Your task to perform on an android device: Open Youtube and go to the subscriptions tab Image 0: 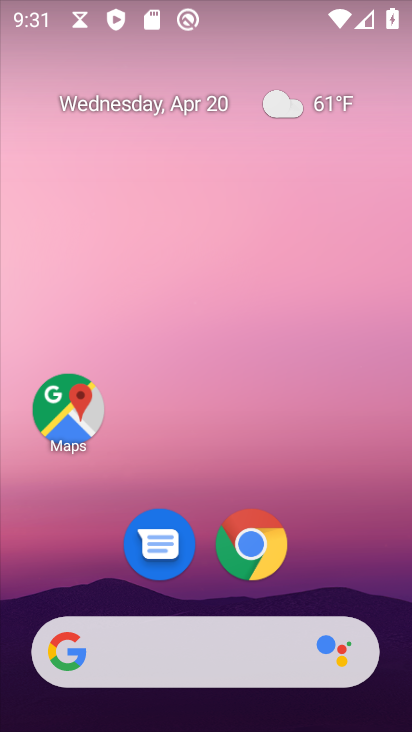
Step 0: drag from (121, 648) to (305, 86)
Your task to perform on an android device: Open Youtube and go to the subscriptions tab Image 1: 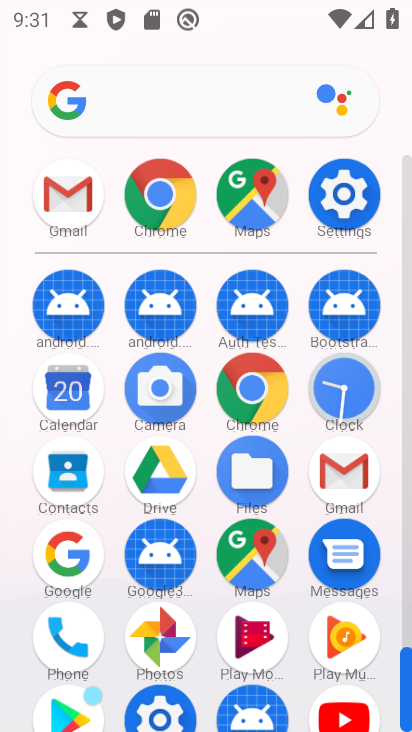
Step 1: click (342, 720)
Your task to perform on an android device: Open Youtube and go to the subscriptions tab Image 2: 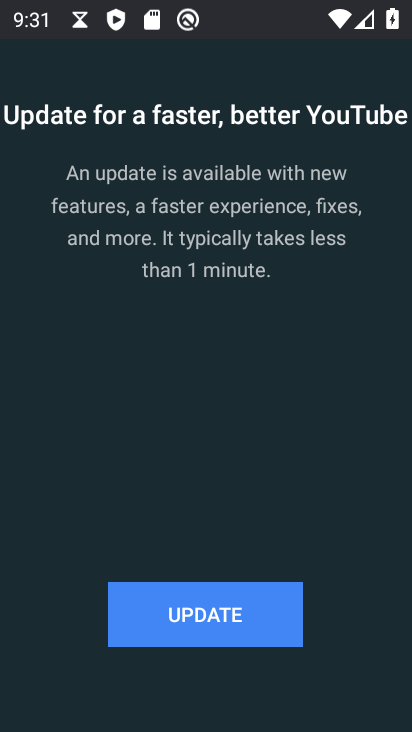
Step 2: click (199, 616)
Your task to perform on an android device: Open Youtube and go to the subscriptions tab Image 3: 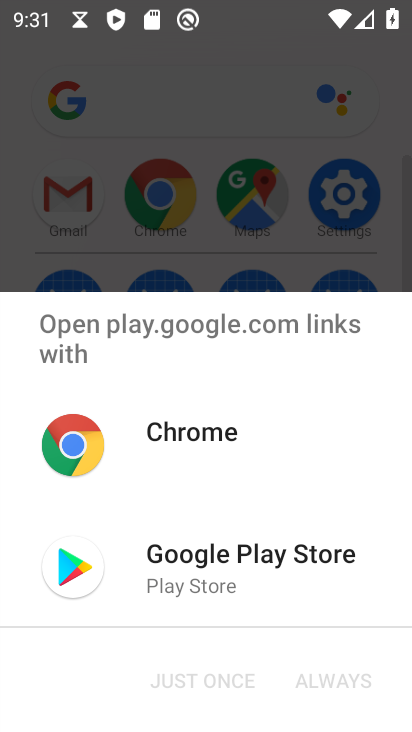
Step 3: click (180, 577)
Your task to perform on an android device: Open Youtube and go to the subscriptions tab Image 4: 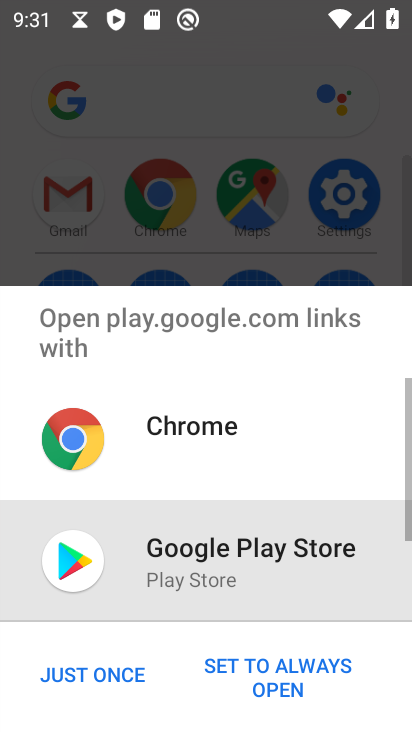
Step 4: click (120, 675)
Your task to perform on an android device: Open Youtube and go to the subscriptions tab Image 5: 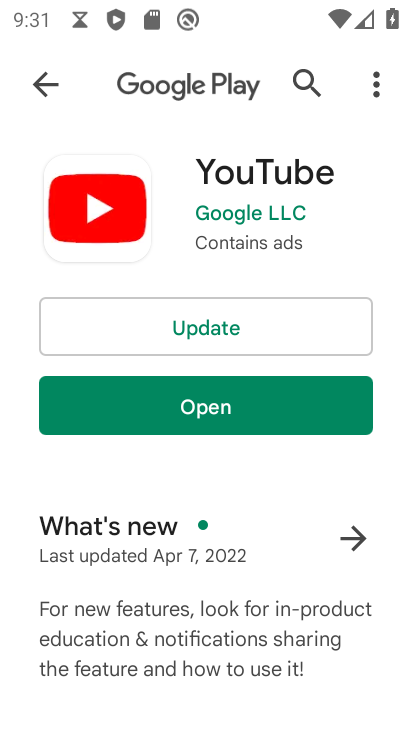
Step 5: click (224, 314)
Your task to perform on an android device: Open Youtube and go to the subscriptions tab Image 6: 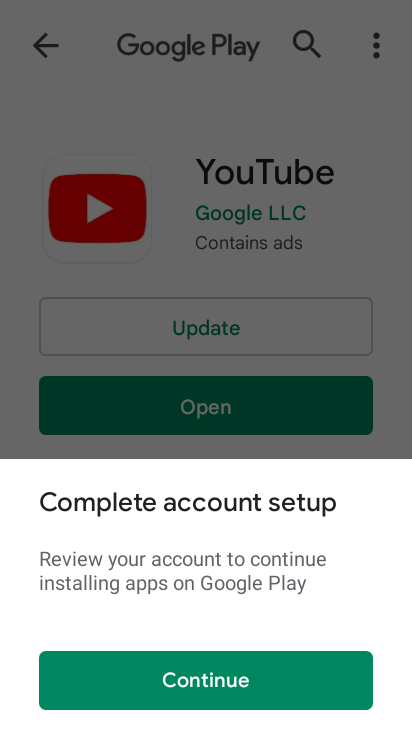
Step 6: click (227, 324)
Your task to perform on an android device: Open Youtube and go to the subscriptions tab Image 7: 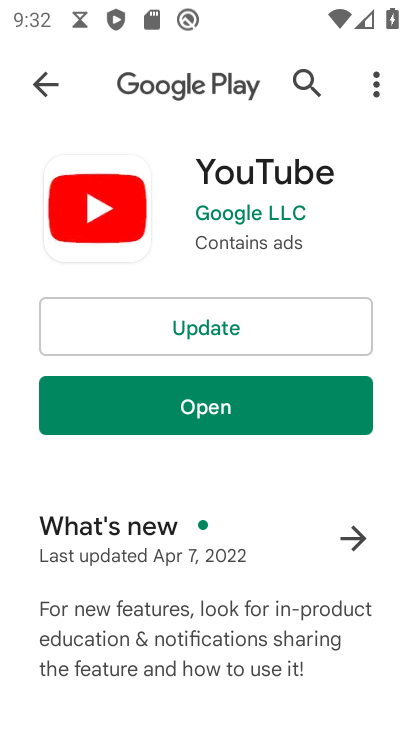
Step 7: click (198, 406)
Your task to perform on an android device: Open Youtube and go to the subscriptions tab Image 8: 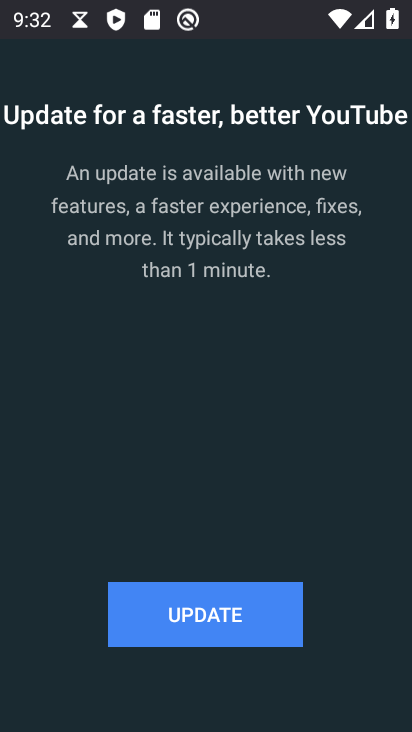
Step 8: click (198, 618)
Your task to perform on an android device: Open Youtube and go to the subscriptions tab Image 9: 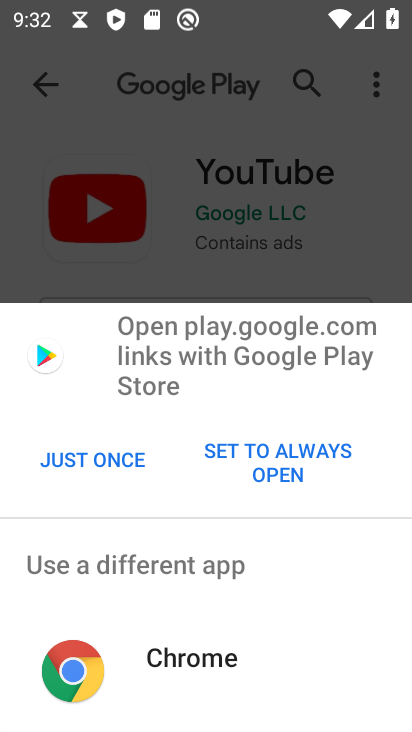
Step 9: click (95, 456)
Your task to perform on an android device: Open Youtube and go to the subscriptions tab Image 10: 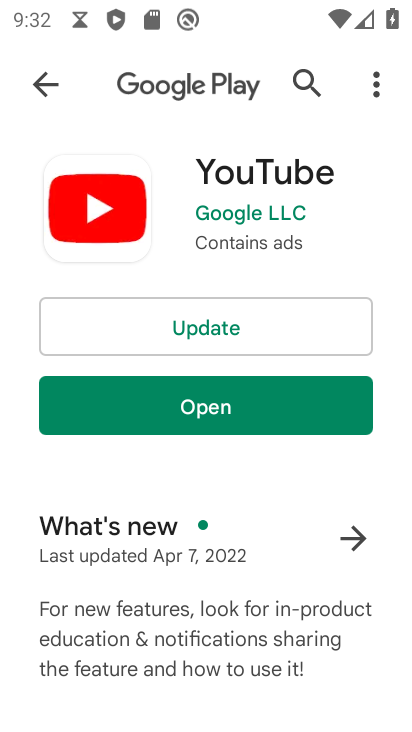
Step 10: click (209, 334)
Your task to perform on an android device: Open Youtube and go to the subscriptions tab Image 11: 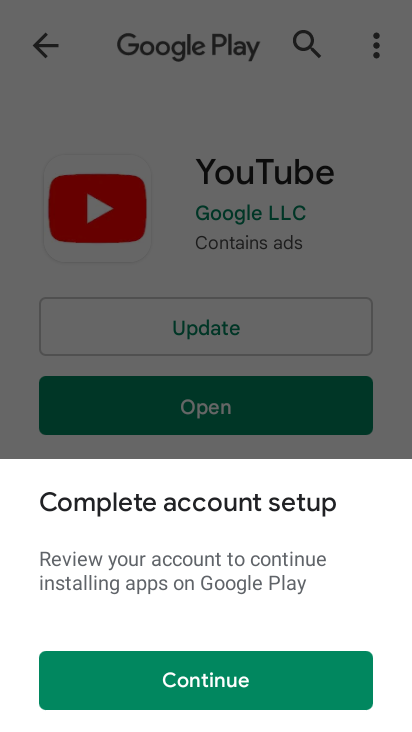
Step 11: click (239, 682)
Your task to perform on an android device: Open Youtube and go to the subscriptions tab Image 12: 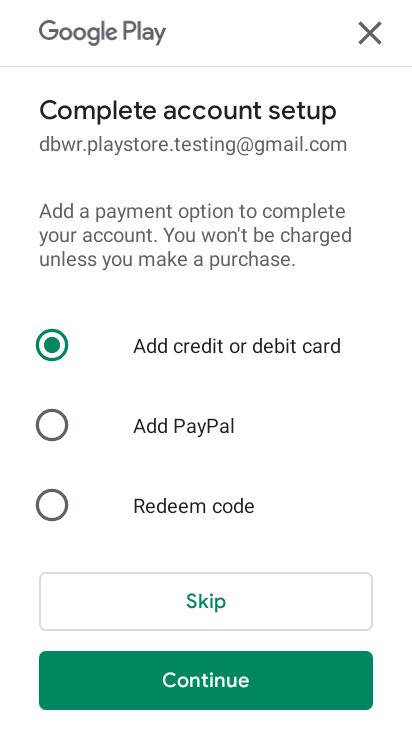
Step 12: click (371, 33)
Your task to perform on an android device: Open Youtube and go to the subscriptions tab Image 13: 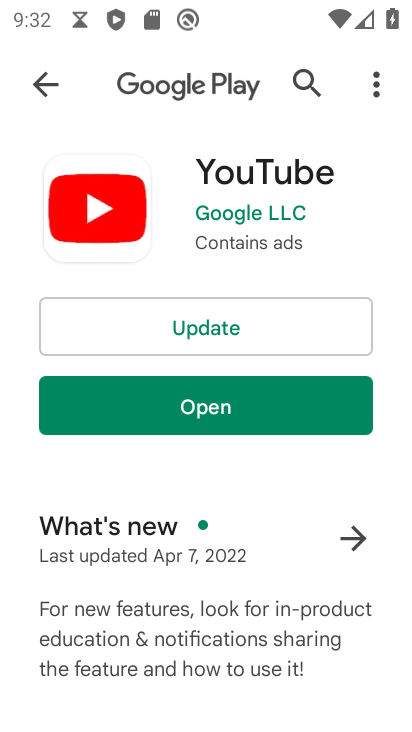
Step 13: task complete